Your task to perform on an android device: Show me productivity apps on the Play Store Image 0: 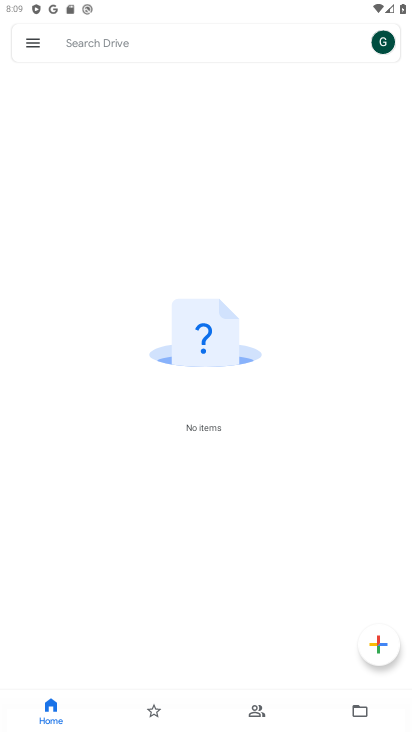
Step 0: press home button
Your task to perform on an android device: Show me productivity apps on the Play Store Image 1: 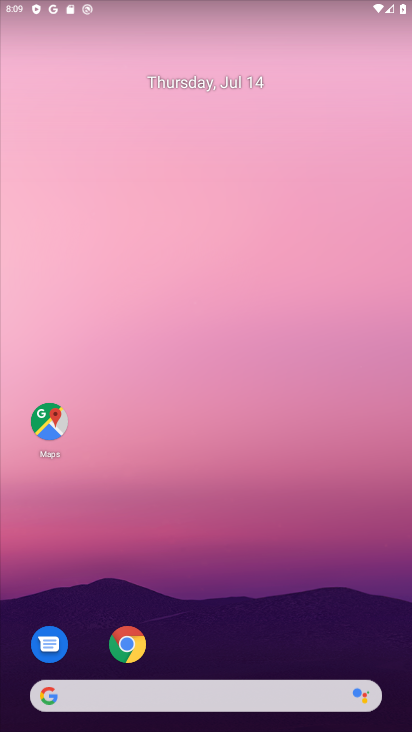
Step 1: drag from (352, 429) to (4, 198)
Your task to perform on an android device: Show me productivity apps on the Play Store Image 2: 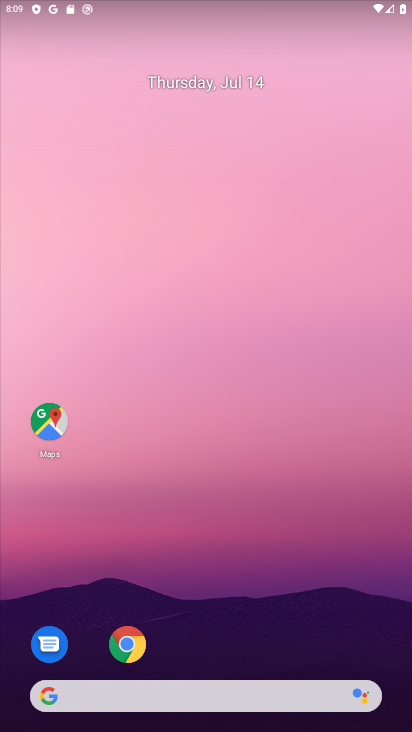
Step 2: drag from (140, 624) to (262, 81)
Your task to perform on an android device: Show me productivity apps on the Play Store Image 3: 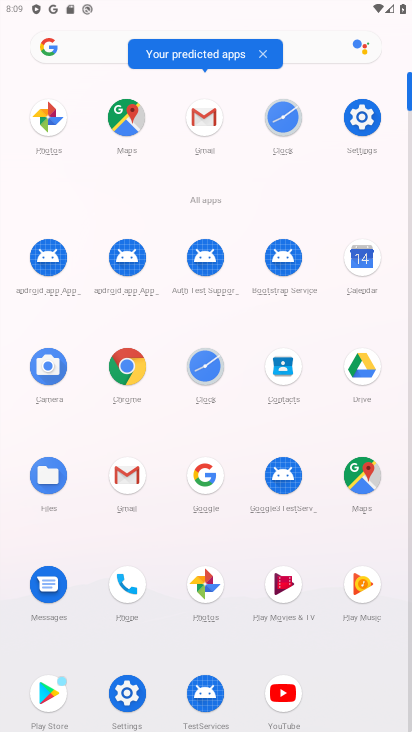
Step 3: click (50, 703)
Your task to perform on an android device: Show me productivity apps on the Play Store Image 4: 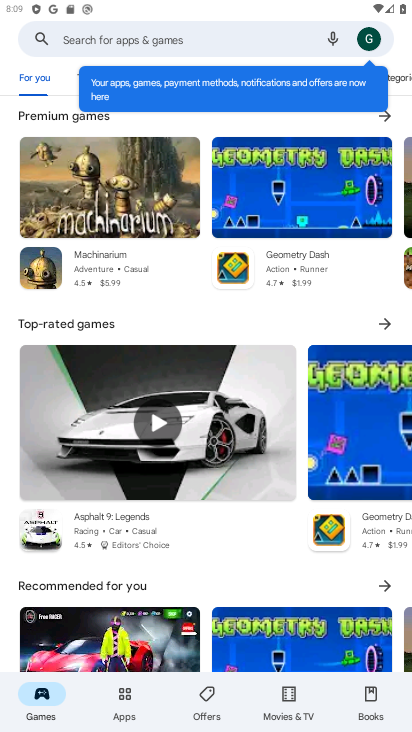
Step 4: drag from (280, 243) to (196, 506)
Your task to perform on an android device: Show me productivity apps on the Play Store Image 5: 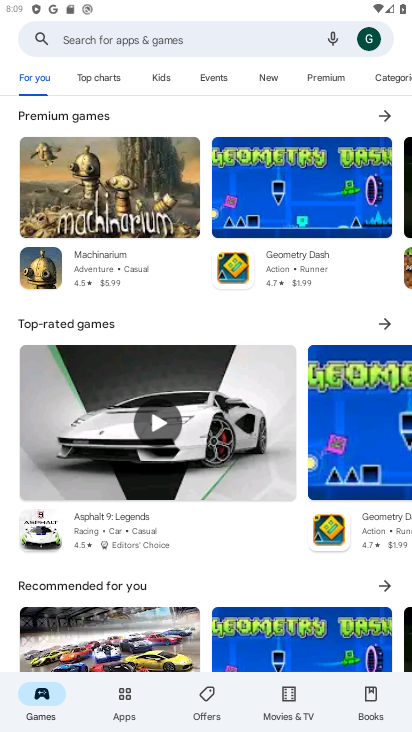
Step 5: click (138, 700)
Your task to perform on an android device: Show me productivity apps on the Play Store Image 6: 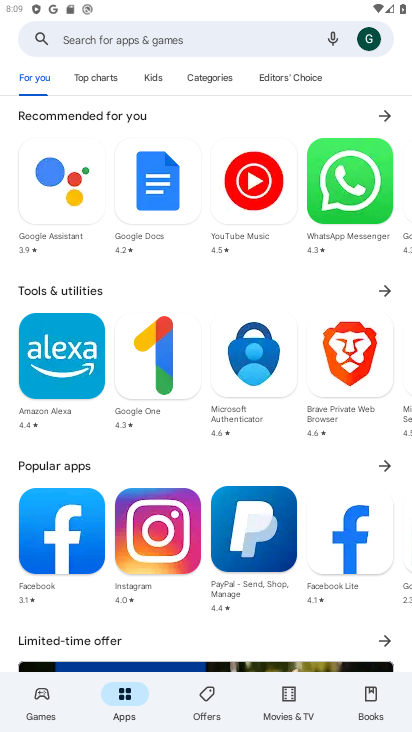
Step 6: click (227, 66)
Your task to perform on an android device: Show me productivity apps on the Play Store Image 7: 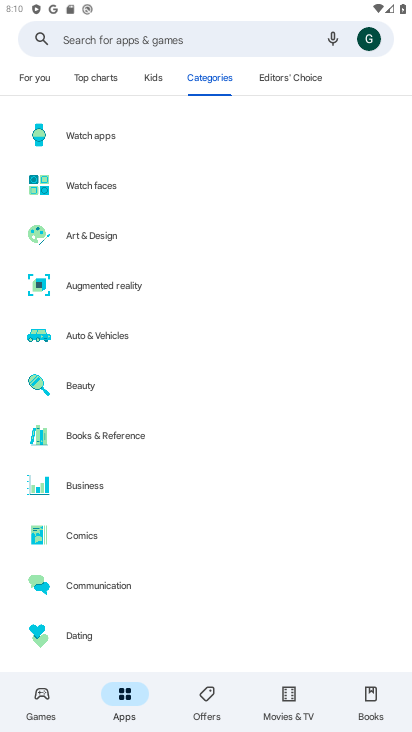
Step 7: drag from (73, 640) to (189, 272)
Your task to perform on an android device: Show me productivity apps on the Play Store Image 8: 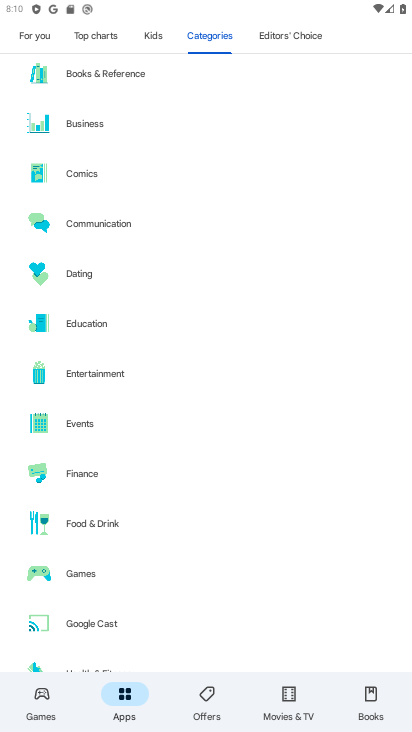
Step 8: drag from (89, 617) to (259, 214)
Your task to perform on an android device: Show me productivity apps on the Play Store Image 9: 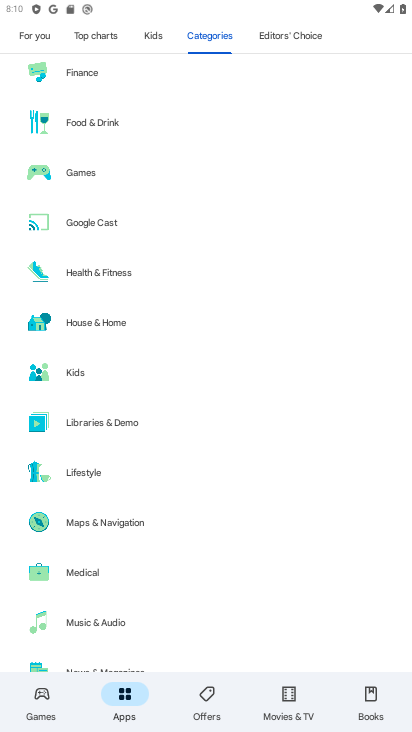
Step 9: drag from (98, 623) to (255, 153)
Your task to perform on an android device: Show me productivity apps on the Play Store Image 10: 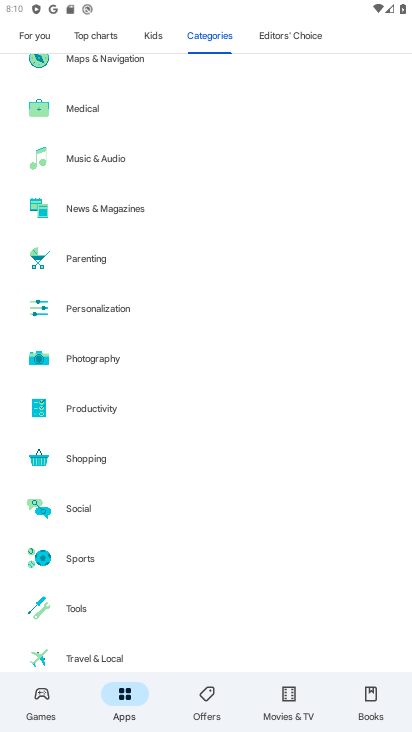
Step 10: drag from (88, 616) to (204, 146)
Your task to perform on an android device: Show me productivity apps on the Play Store Image 11: 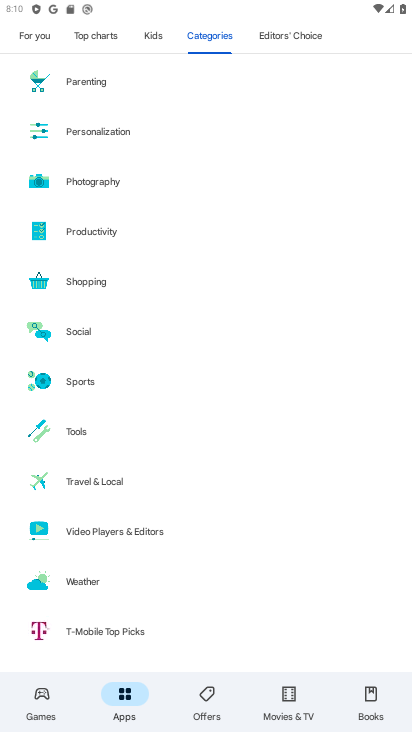
Step 11: drag from (118, 179) to (94, 408)
Your task to perform on an android device: Show me productivity apps on the Play Store Image 12: 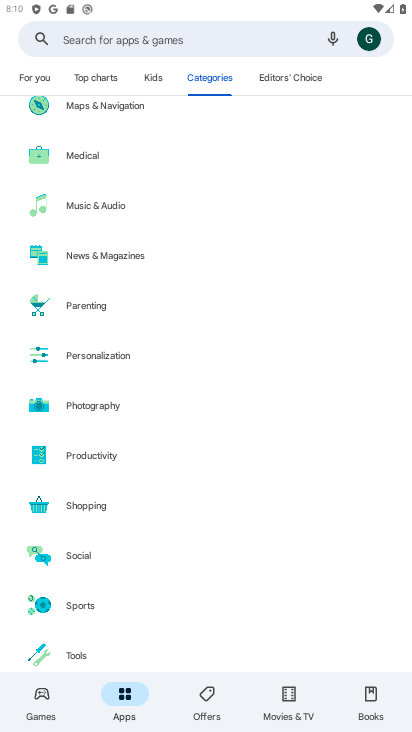
Step 12: click (118, 462)
Your task to perform on an android device: Show me productivity apps on the Play Store Image 13: 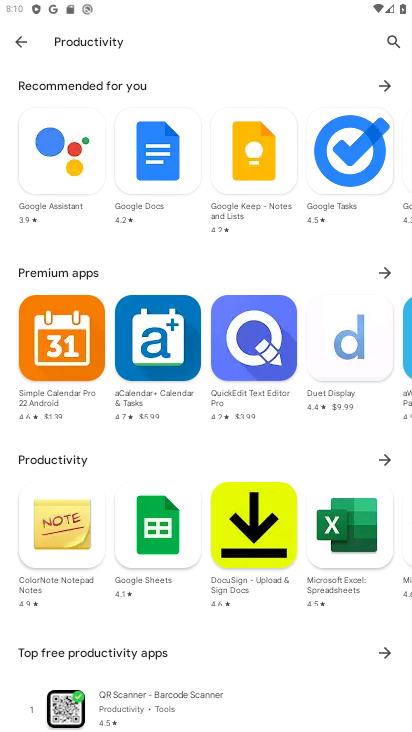
Step 13: task complete